Your task to perform on an android device: install app "Speedtest by Ookla" Image 0: 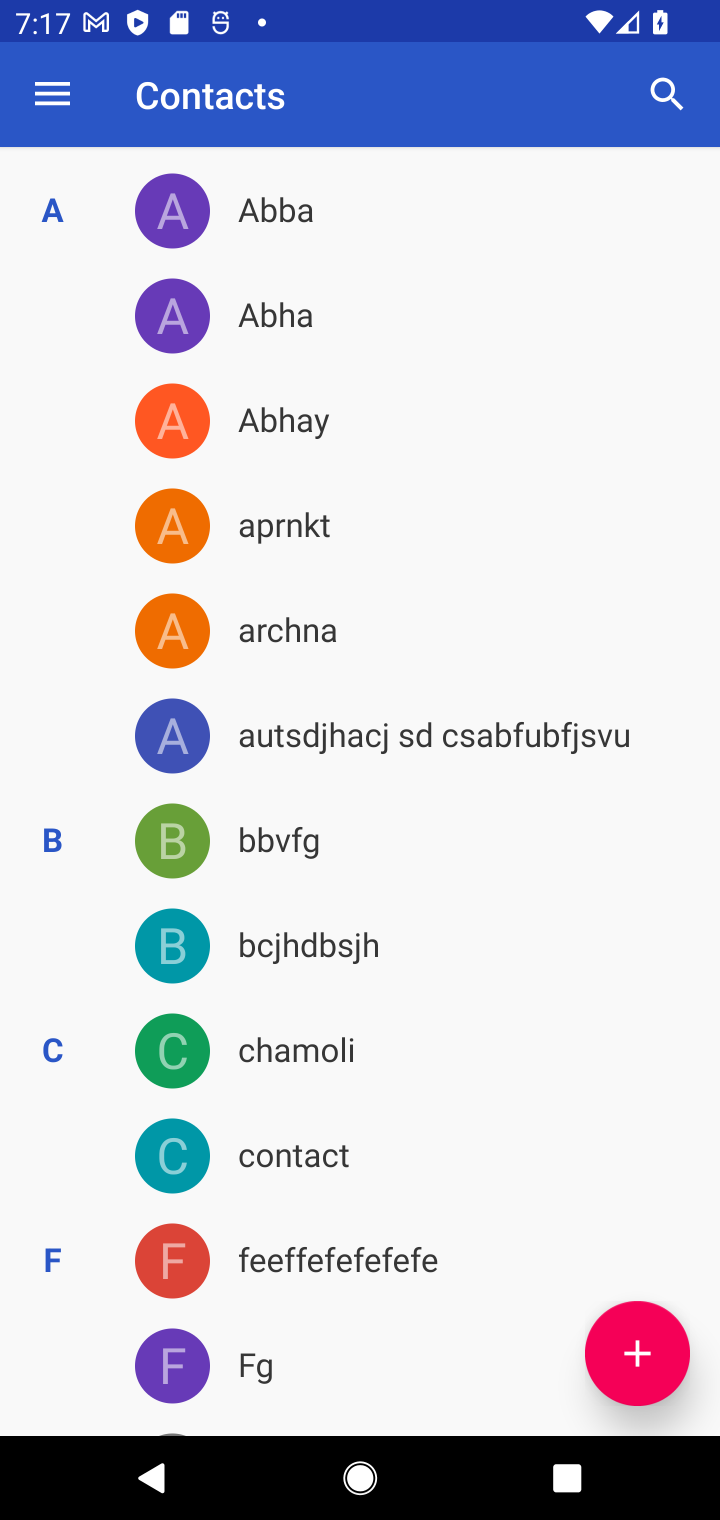
Step 0: press back button
Your task to perform on an android device: install app "Speedtest by Ookla" Image 1: 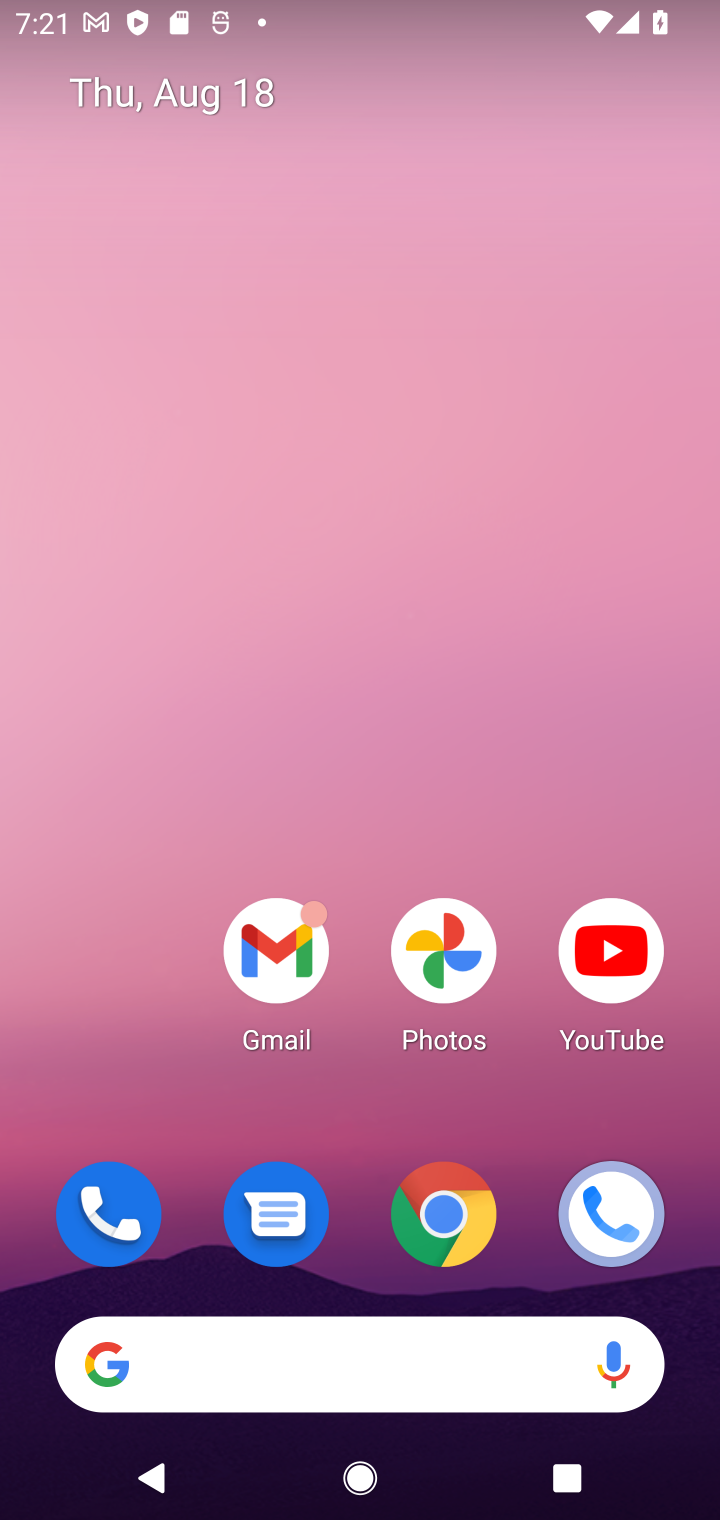
Step 1: drag from (136, 992) to (360, 81)
Your task to perform on an android device: install app "Speedtest by Ookla" Image 2: 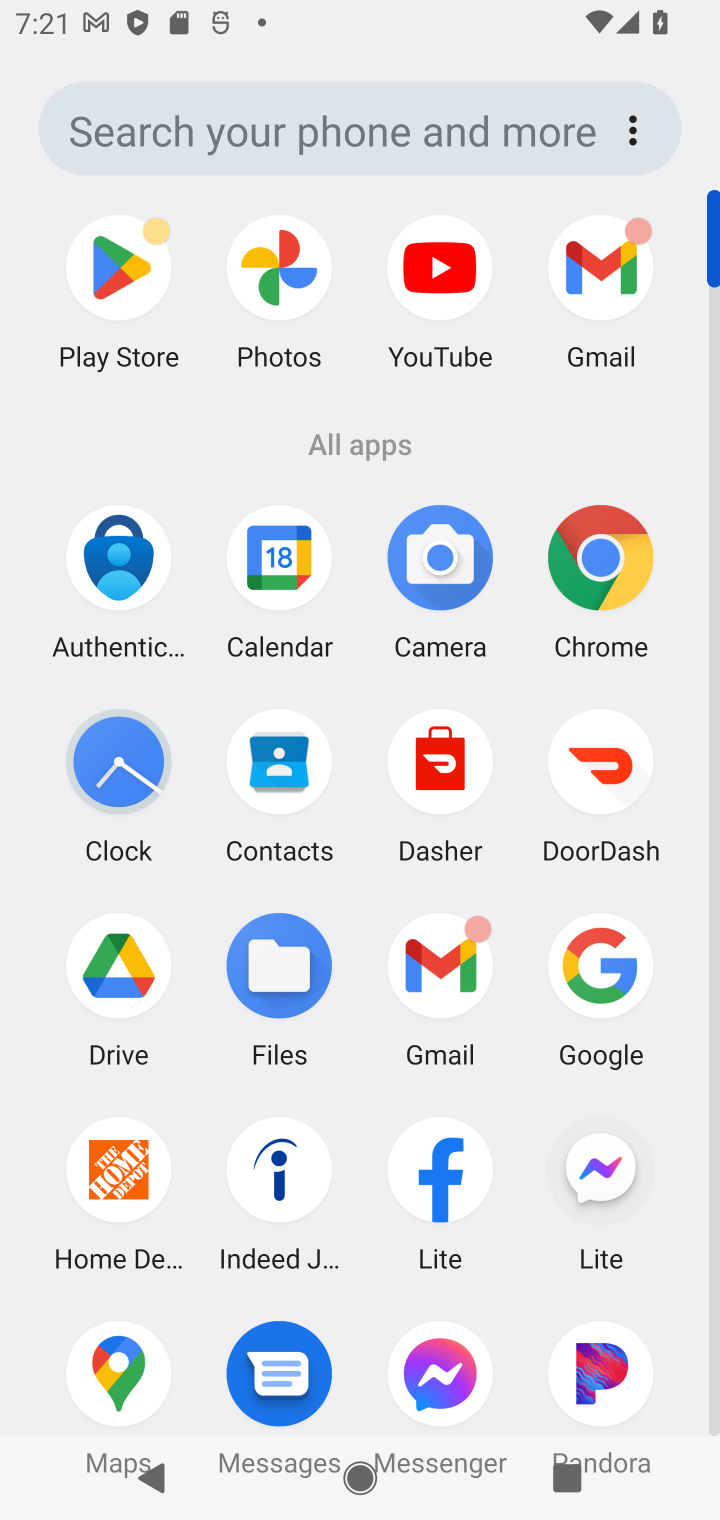
Step 2: click (98, 267)
Your task to perform on an android device: install app "Speedtest by Ookla" Image 3: 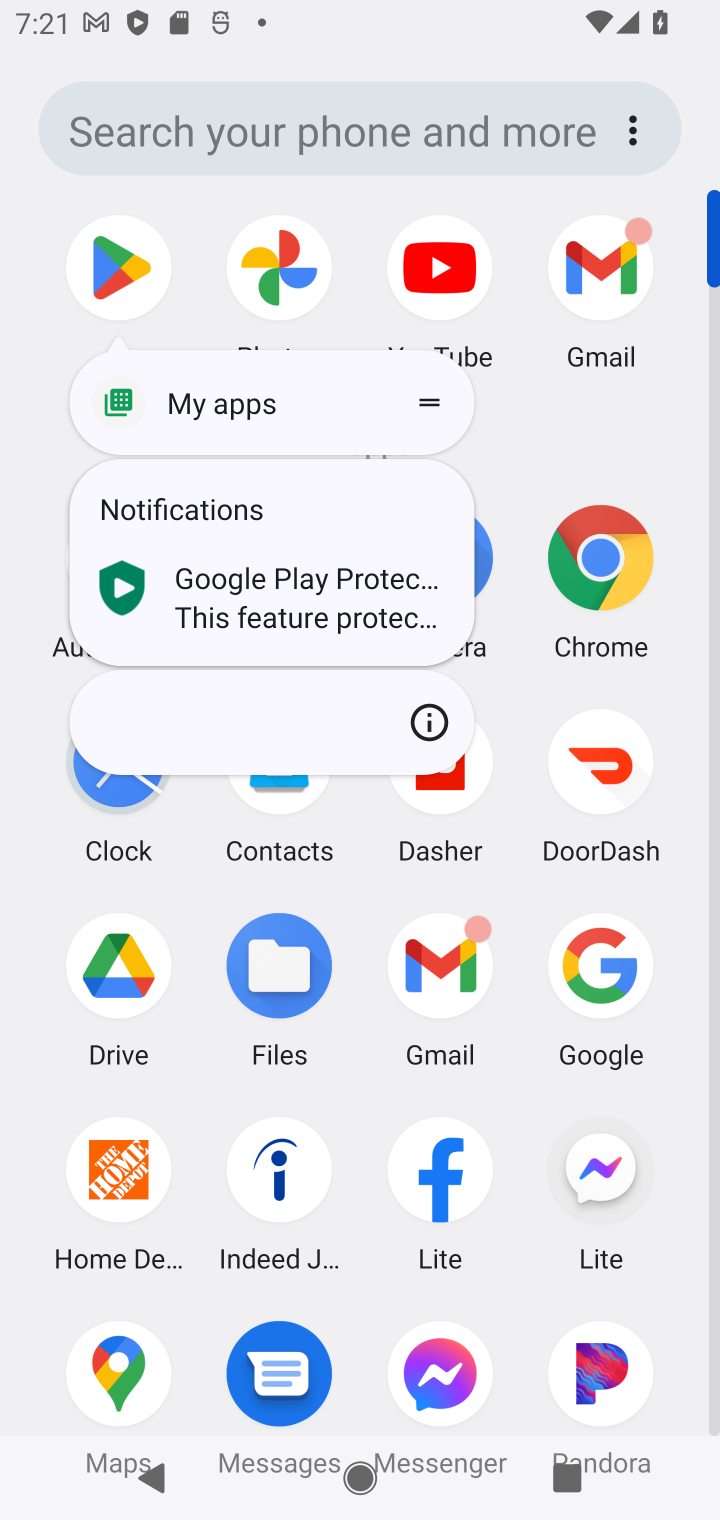
Step 3: click (118, 287)
Your task to perform on an android device: install app "Speedtest by Ookla" Image 4: 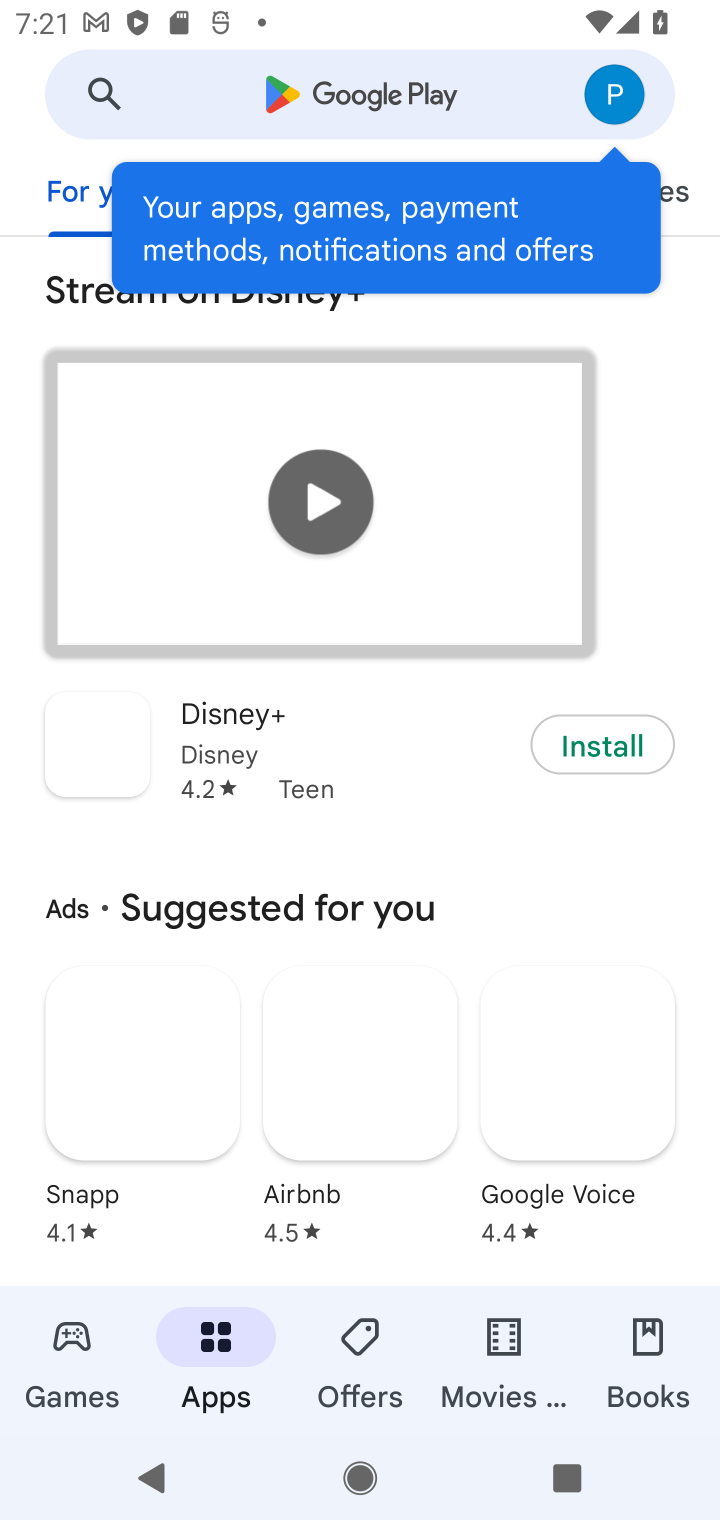
Step 4: click (376, 110)
Your task to perform on an android device: install app "Speedtest by Ookla" Image 5: 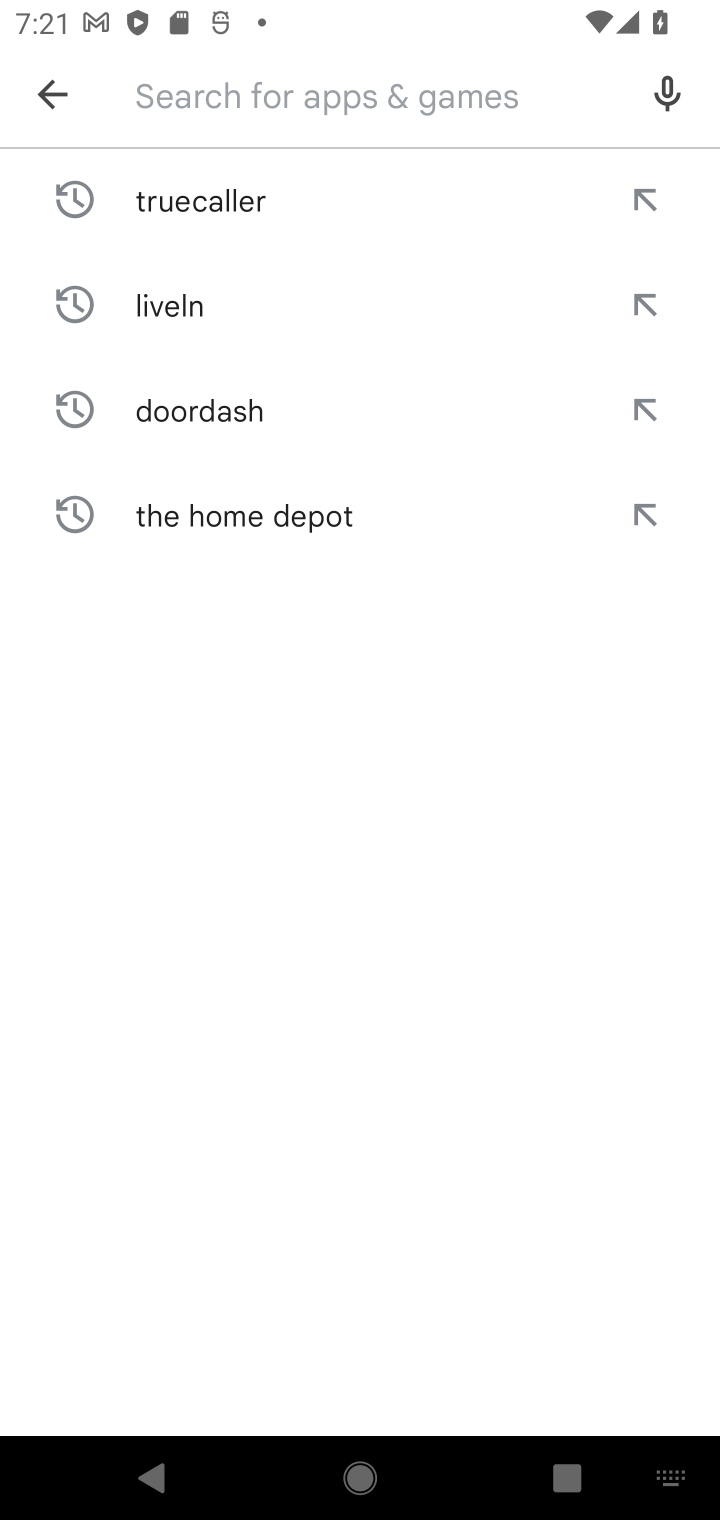
Step 5: type "speet test"
Your task to perform on an android device: install app "Speedtest by Ookla" Image 6: 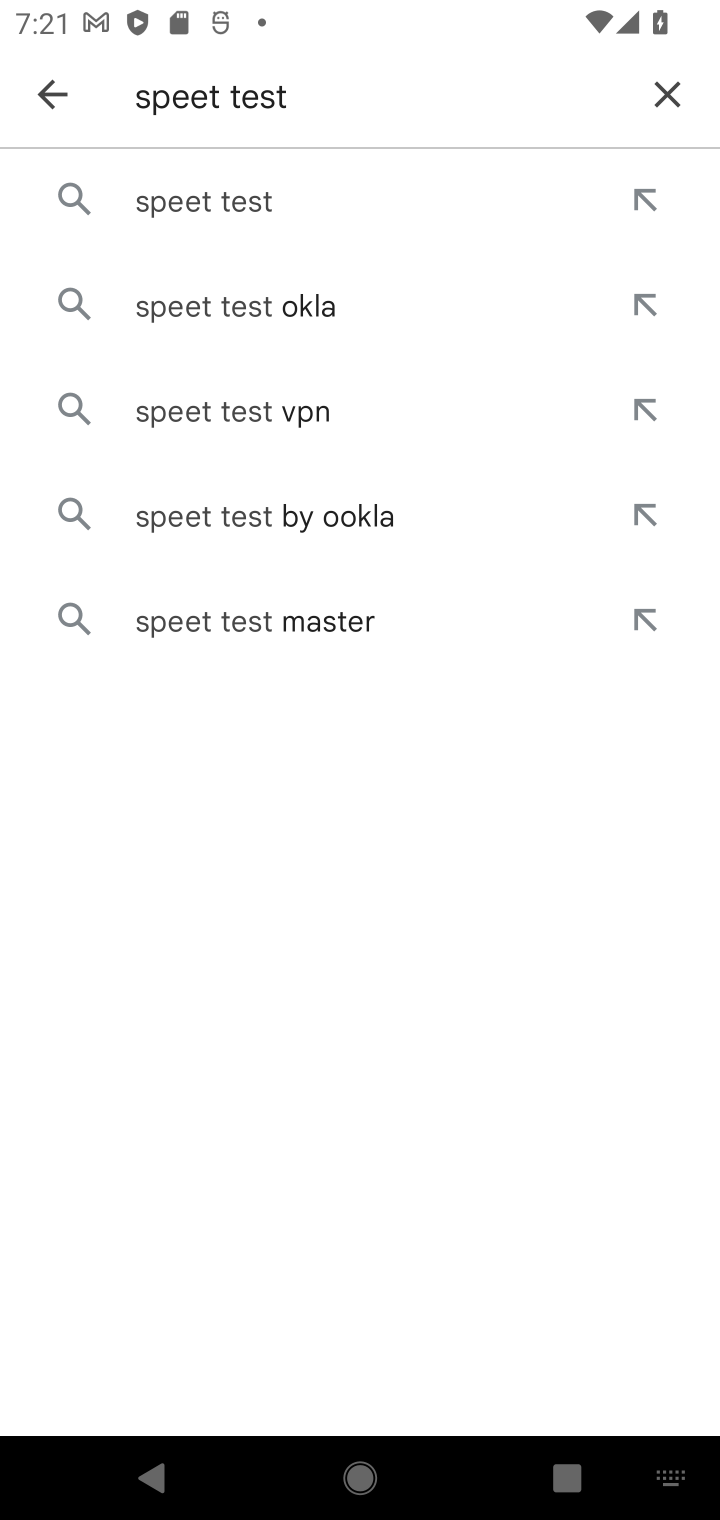
Step 6: click (332, 293)
Your task to perform on an android device: install app "Speedtest by Ookla" Image 7: 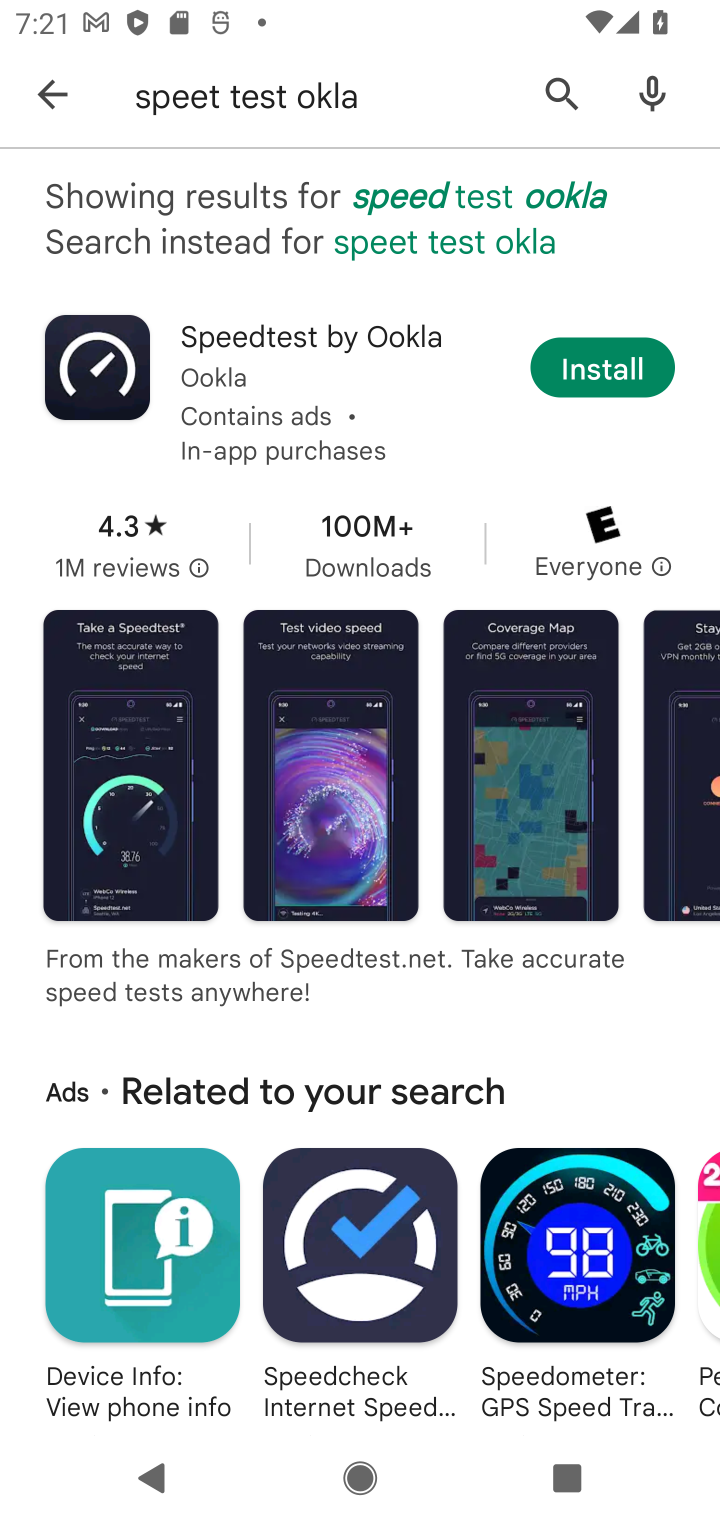
Step 7: click (595, 368)
Your task to perform on an android device: install app "Speedtest by Ookla" Image 8: 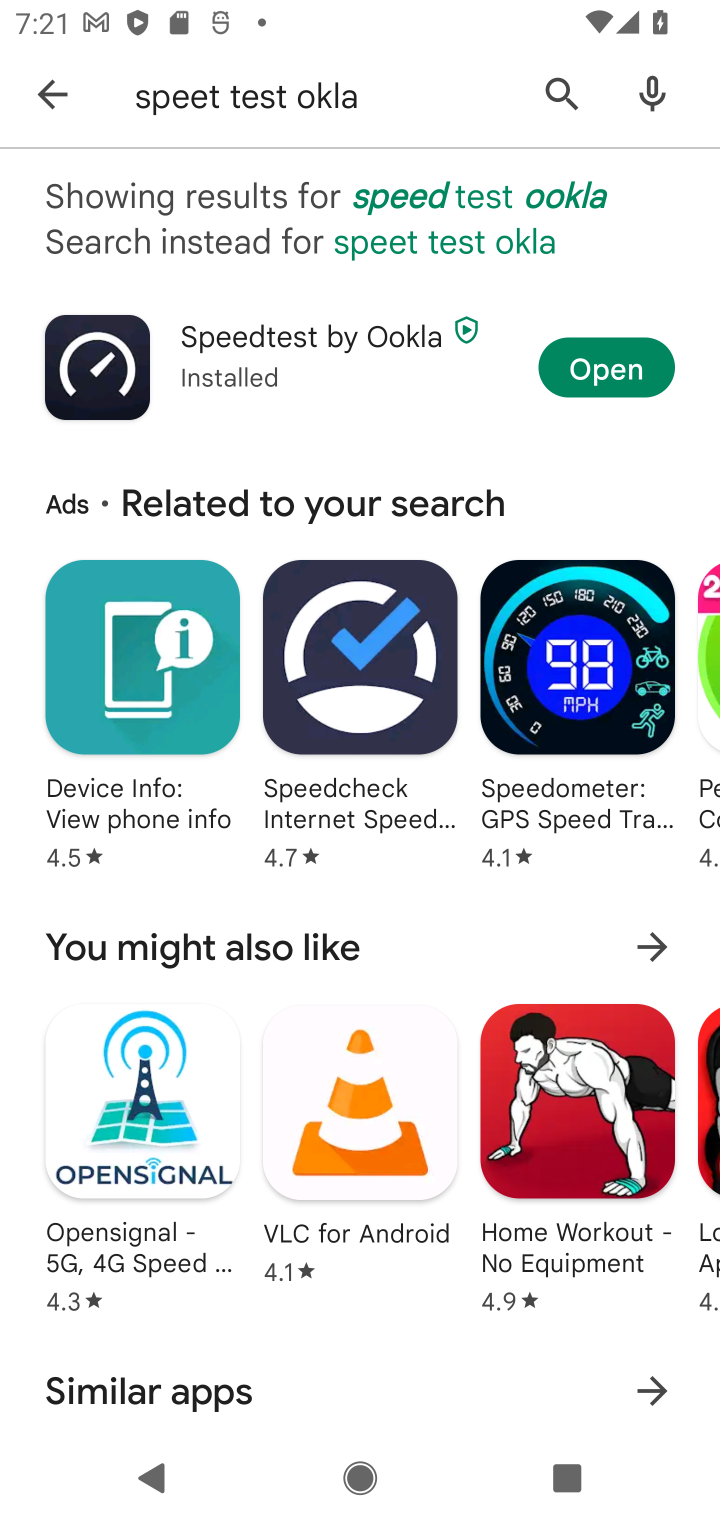
Step 8: task complete